Your task to perform on an android device: Open Android settings Image 0: 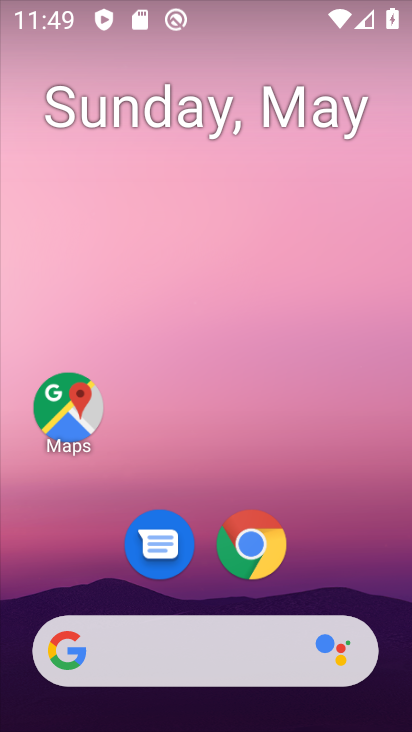
Step 0: drag from (326, 619) to (294, 64)
Your task to perform on an android device: Open Android settings Image 1: 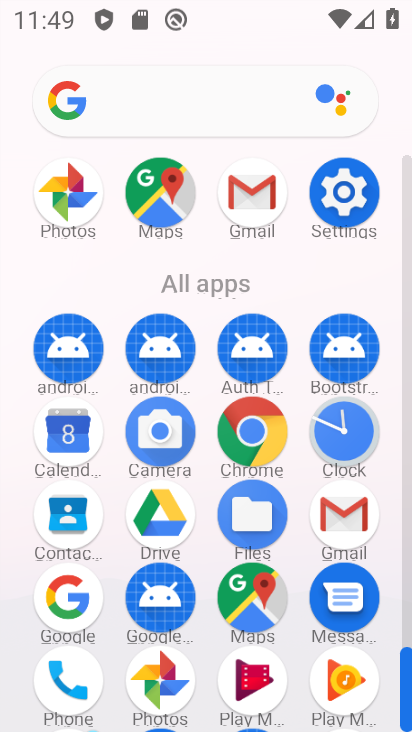
Step 1: click (340, 193)
Your task to perform on an android device: Open Android settings Image 2: 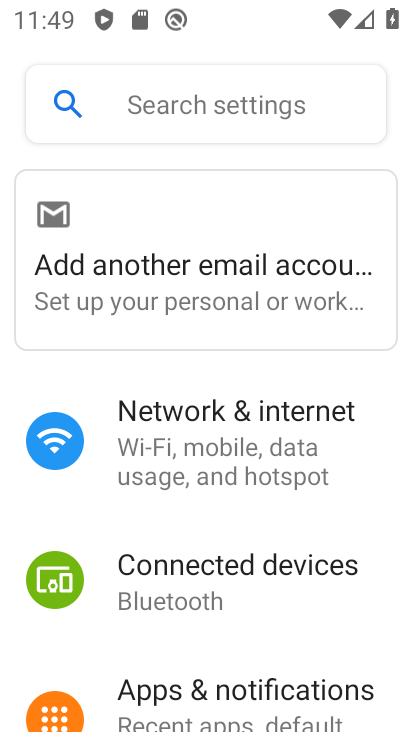
Step 2: drag from (275, 675) to (306, 139)
Your task to perform on an android device: Open Android settings Image 3: 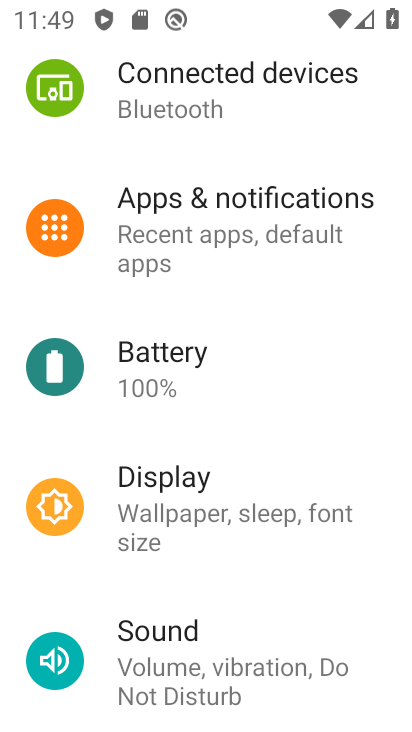
Step 3: drag from (300, 696) to (287, 87)
Your task to perform on an android device: Open Android settings Image 4: 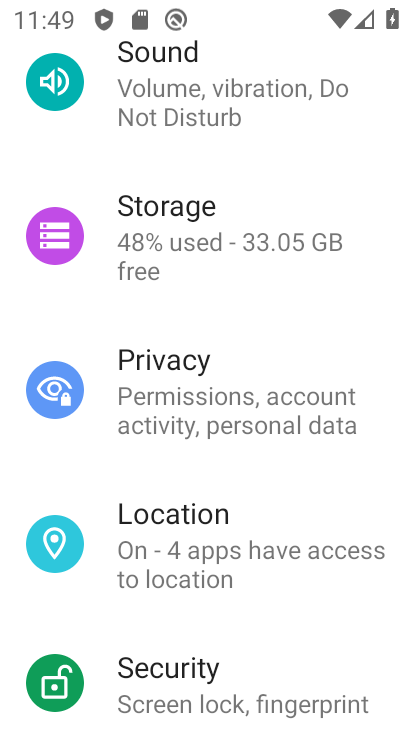
Step 4: drag from (225, 698) to (238, 210)
Your task to perform on an android device: Open Android settings Image 5: 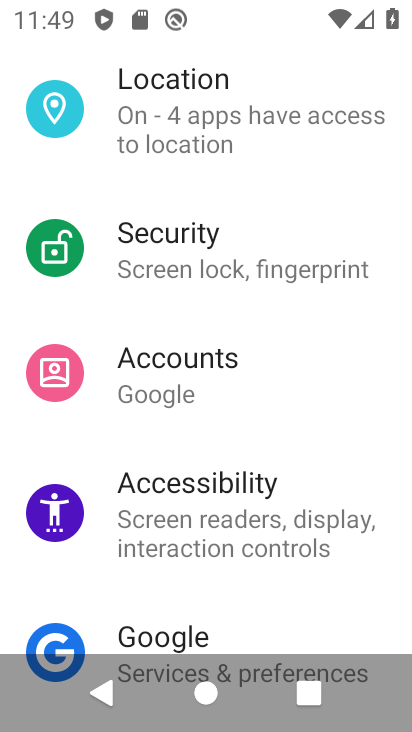
Step 5: drag from (243, 481) to (250, 263)
Your task to perform on an android device: Open Android settings Image 6: 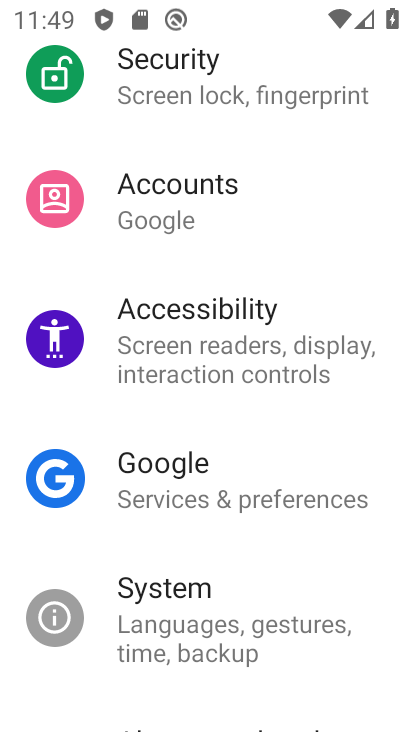
Step 6: drag from (232, 683) to (258, 182)
Your task to perform on an android device: Open Android settings Image 7: 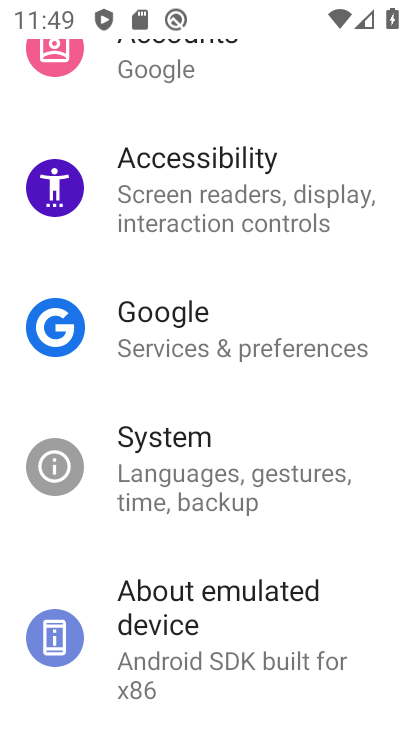
Step 7: click (306, 640)
Your task to perform on an android device: Open Android settings Image 8: 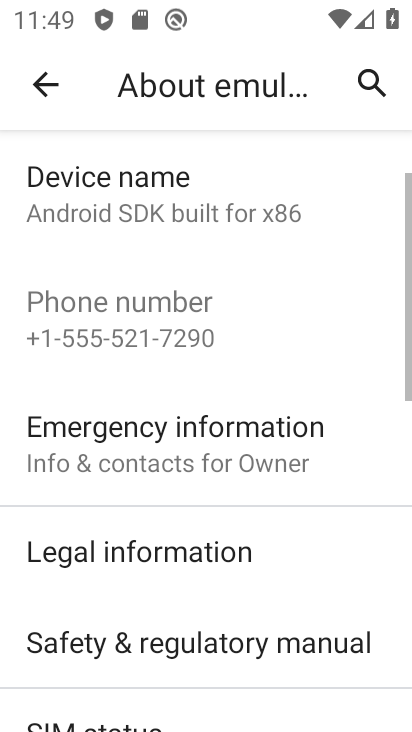
Step 8: drag from (257, 645) to (293, 56)
Your task to perform on an android device: Open Android settings Image 9: 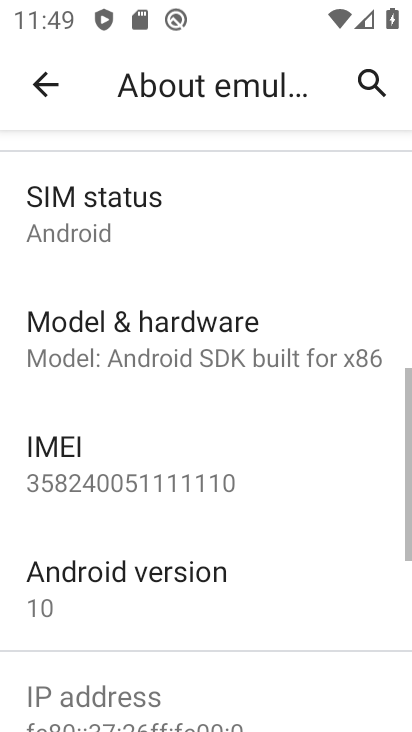
Step 9: click (185, 617)
Your task to perform on an android device: Open Android settings Image 10: 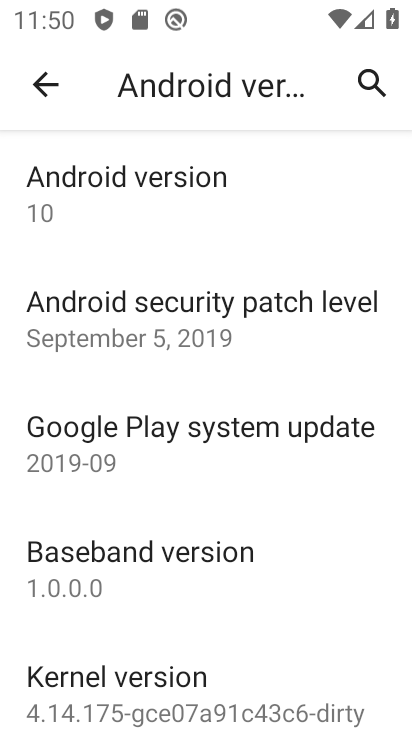
Step 10: task complete